Your task to perform on an android device: turn on javascript in the chrome app Image 0: 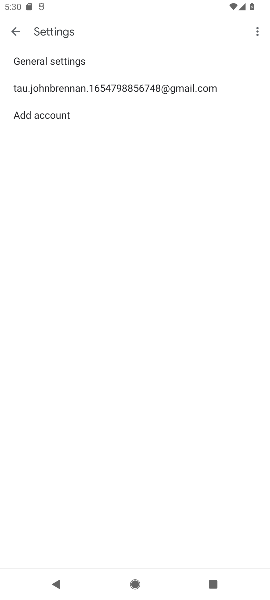
Step 0: press home button
Your task to perform on an android device: turn on javascript in the chrome app Image 1: 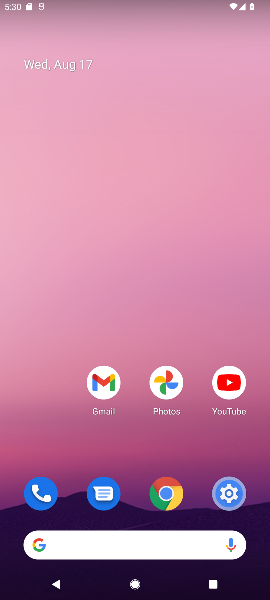
Step 1: click (169, 494)
Your task to perform on an android device: turn on javascript in the chrome app Image 2: 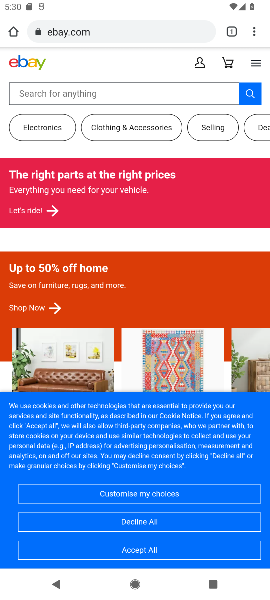
Step 2: drag from (258, 23) to (165, 376)
Your task to perform on an android device: turn on javascript in the chrome app Image 3: 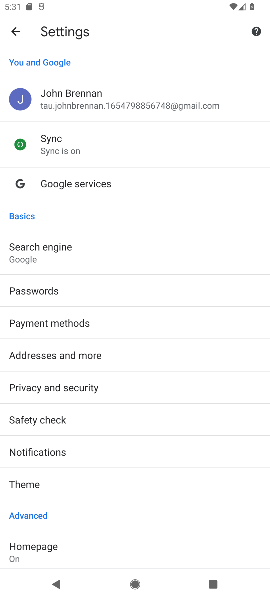
Step 3: drag from (179, 529) to (172, 292)
Your task to perform on an android device: turn on javascript in the chrome app Image 4: 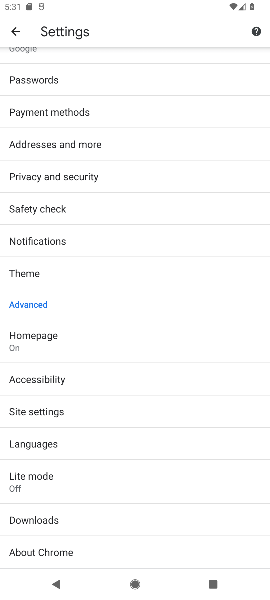
Step 4: click (25, 417)
Your task to perform on an android device: turn on javascript in the chrome app Image 5: 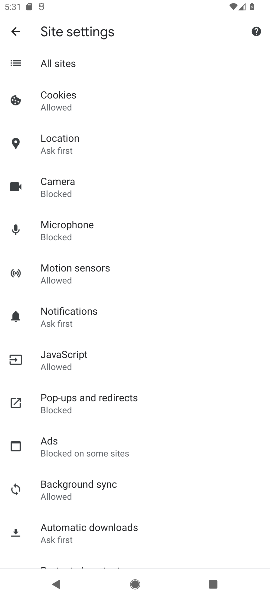
Step 5: click (56, 370)
Your task to perform on an android device: turn on javascript in the chrome app Image 6: 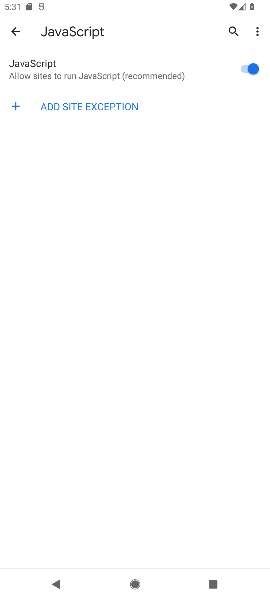
Step 6: task complete